Your task to perform on an android device: delete a single message in the gmail app Image 0: 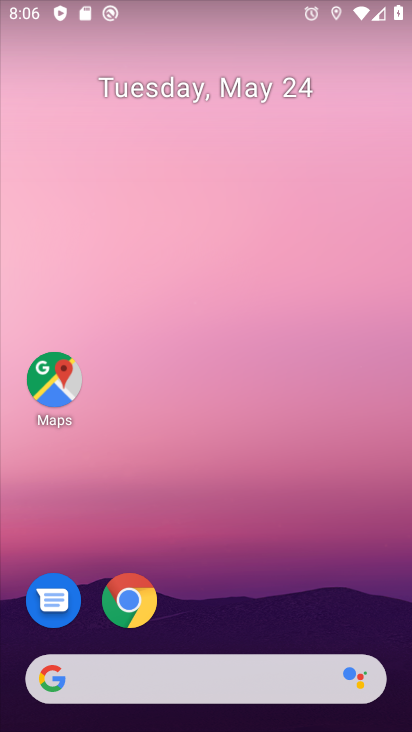
Step 0: drag from (206, 675) to (206, 104)
Your task to perform on an android device: delete a single message in the gmail app Image 1: 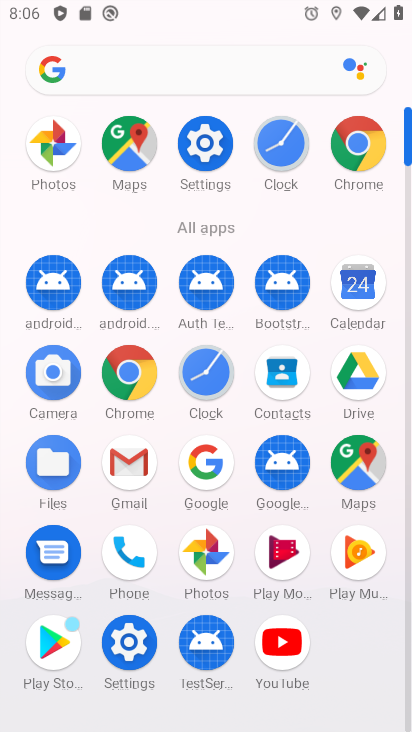
Step 1: click (132, 461)
Your task to perform on an android device: delete a single message in the gmail app Image 2: 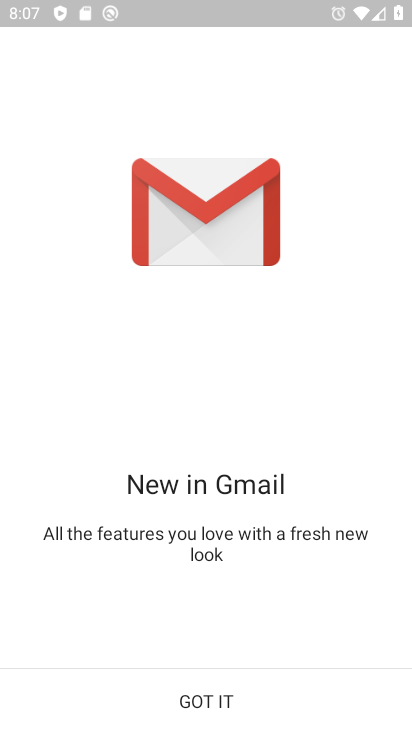
Step 2: click (198, 700)
Your task to perform on an android device: delete a single message in the gmail app Image 3: 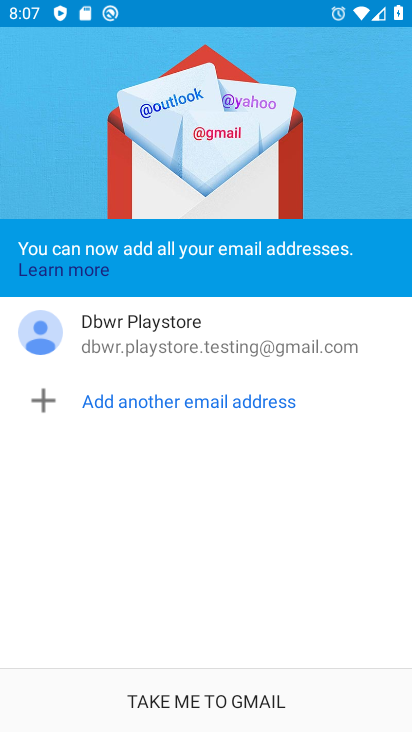
Step 3: click (195, 697)
Your task to perform on an android device: delete a single message in the gmail app Image 4: 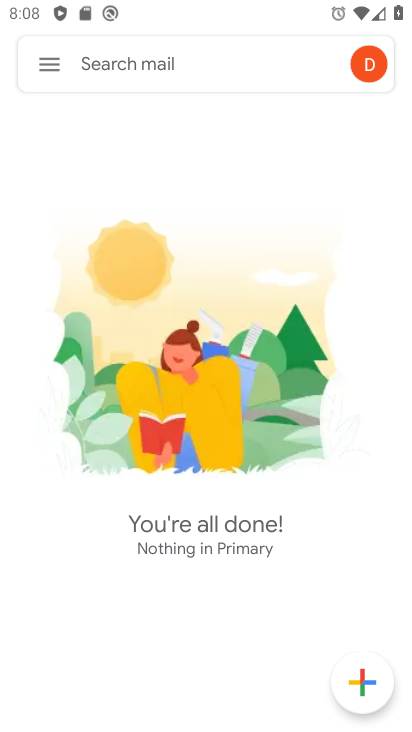
Step 4: task complete